Your task to perform on an android device: Show me popular games on the Play Store Image 0: 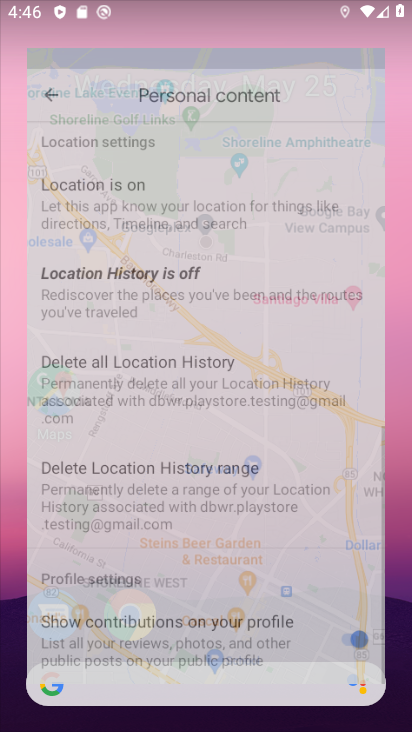
Step 0: press home button
Your task to perform on an android device: Show me popular games on the Play Store Image 1: 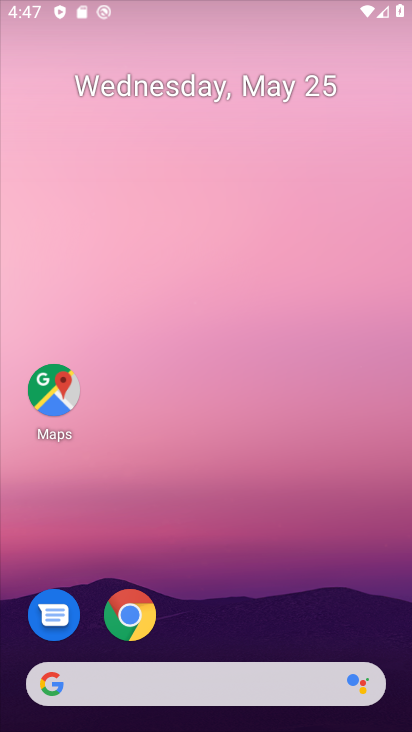
Step 1: drag from (174, 580) to (296, 53)
Your task to perform on an android device: Show me popular games on the Play Store Image 2: 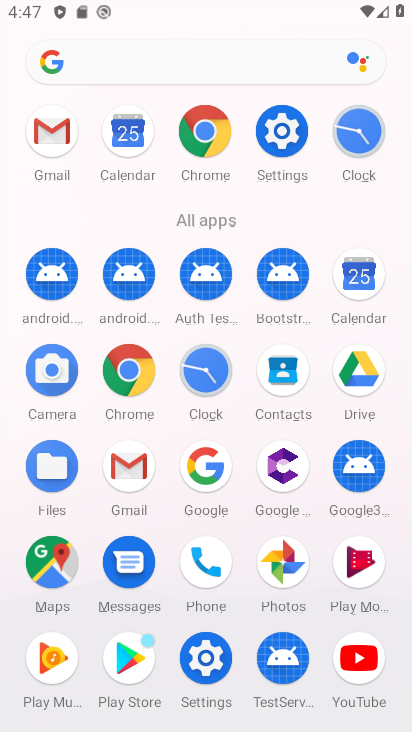
Step 2: click (135, 674)
Your task to perform on an android device: Show me popular games on the Play Store Image 3: 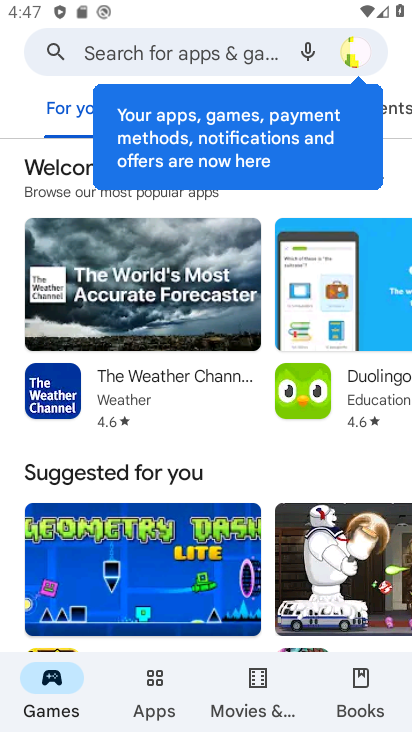
Step 3: click (176, 46)
Your task to perform on an android device: Show me popular games on the Play Store Image 4: 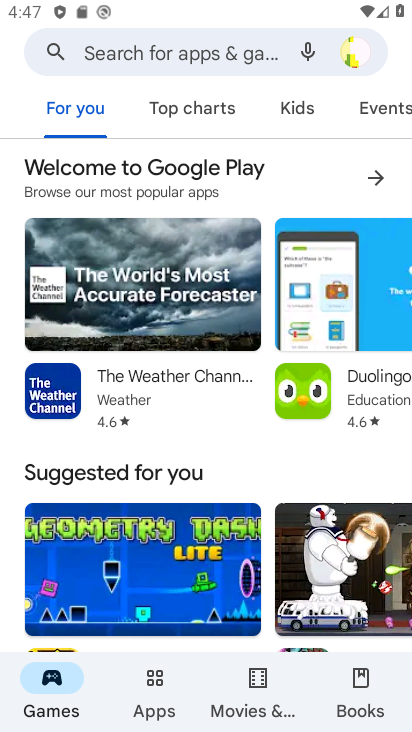
Step 4: click (179, 50)
Your task to perform on an android device: Show me popular games on the Play Store Image 5: 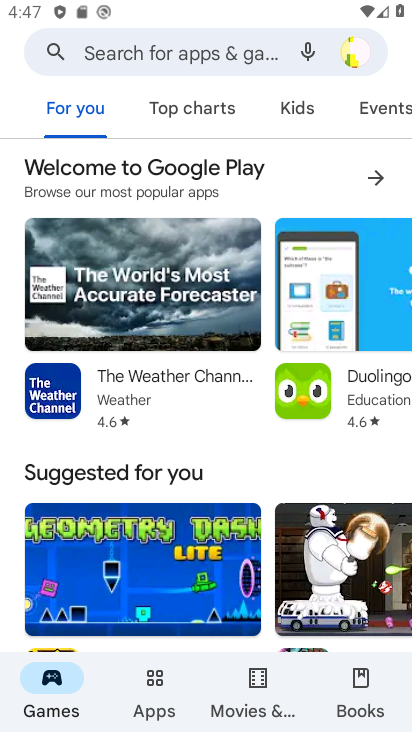
Step 5: click (179, 50)
Your task to perform on an android device: Show me popular games on the Play Store Image 6: 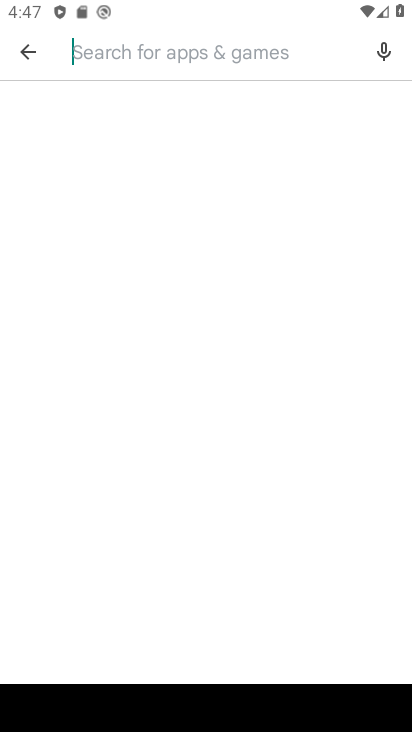
Step 6: type " popular games"
Your task to perform on an android device: Show me popular games on the Play Store Image 7: 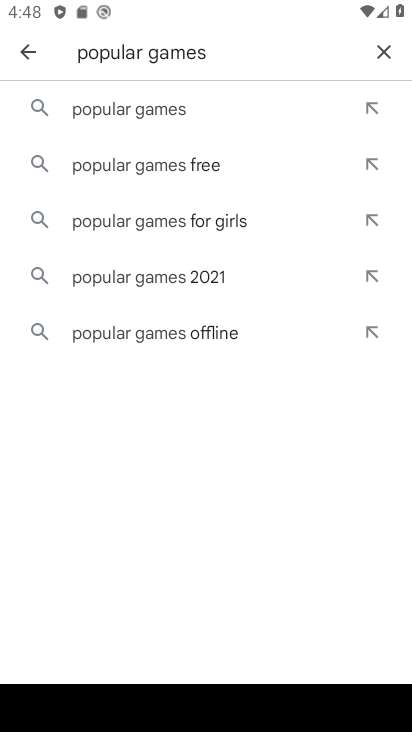
Step 7: click (171, 116)
Your task to perform on an android device: Show me popular games on the Play Store Image 8: 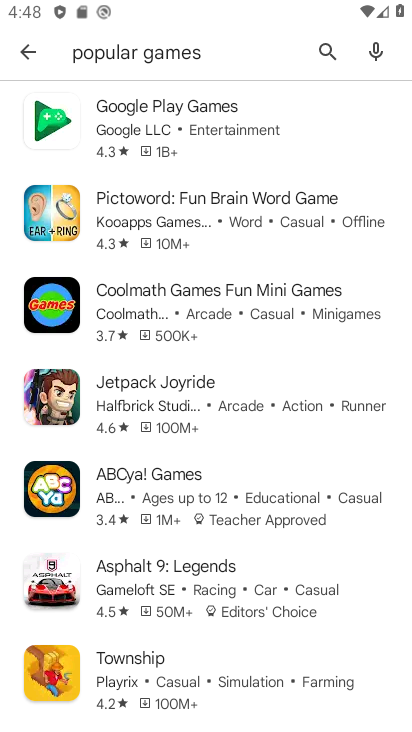
Step 8: task complete